Your task to perform on an android device: open sync settings in chrome Image 0: 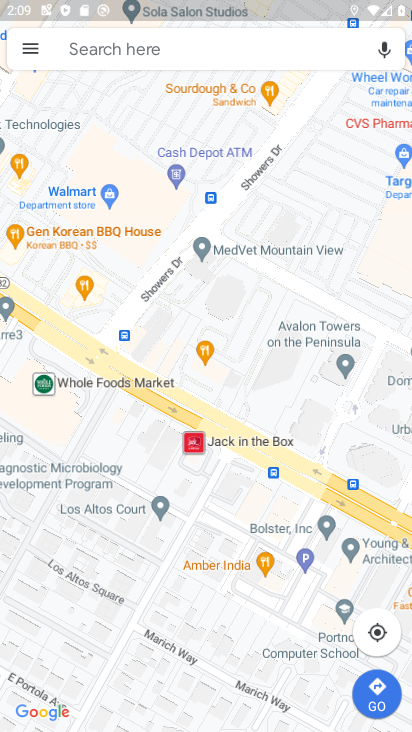
Step 0: press home button
Your task to perform on an android device: open sync settings in chrome Image 1: 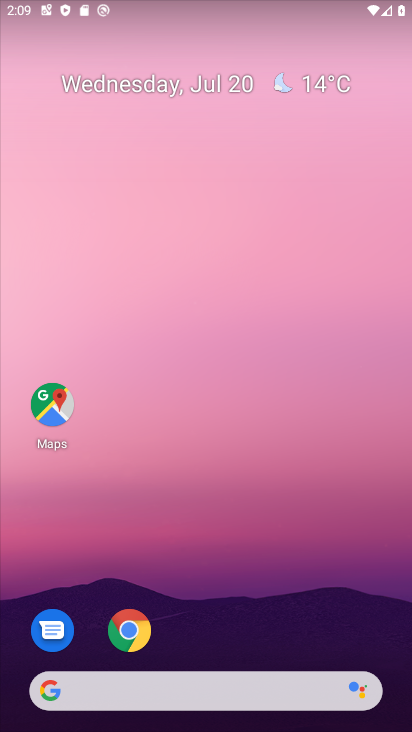
Step 1: click (141, 614)
Your task to perform on an android device: open sync settings in chrome Image 2: 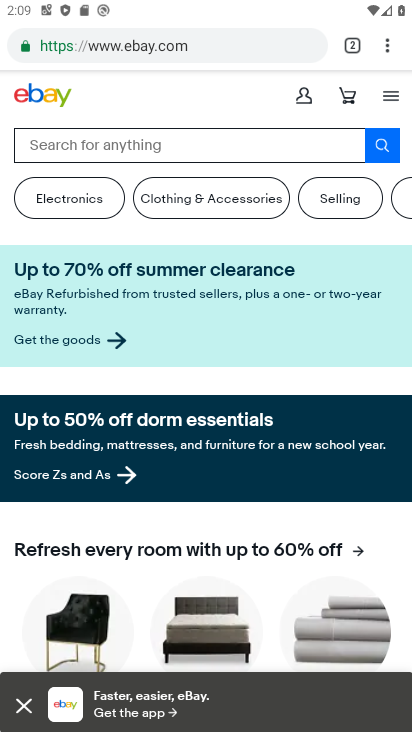
Step 2: click (388, 45)
Your task to perform on an android device: open sync settings in chrome Image 3: 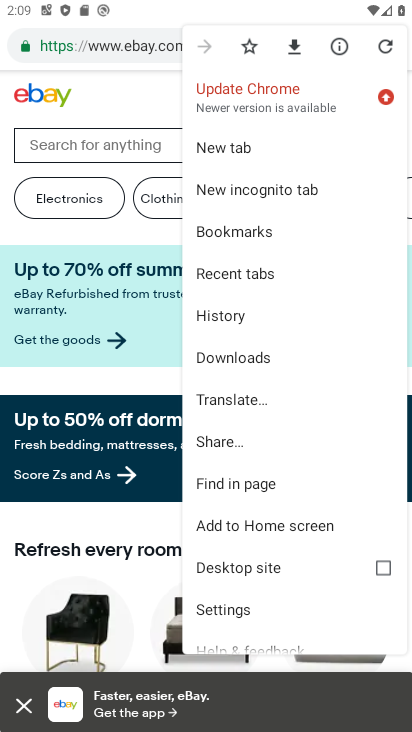
Step 3: click (222, 609)
Your task to perform on an android device: open sync settings in chrome Image 4: 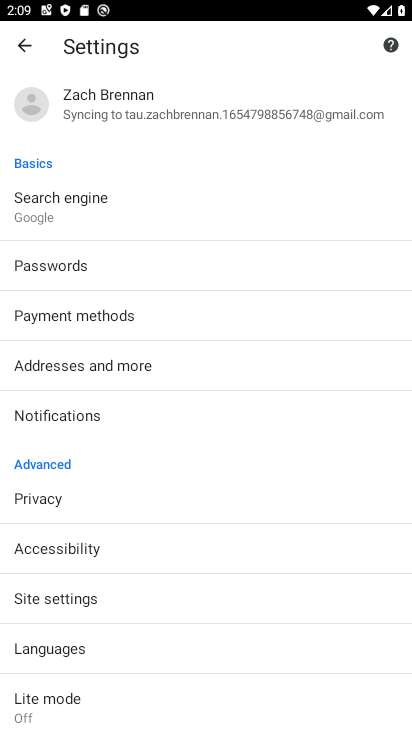
Step 4: click (77, 594)
Your task to perform on an android device: open sync settings in chrome Image 5: 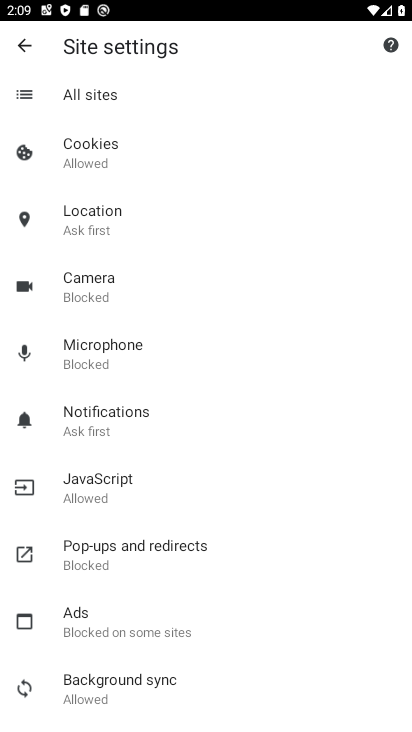
Step 5: click (139, 684)
Your task to perform on an android device: open sync settings in chrome Image 6: 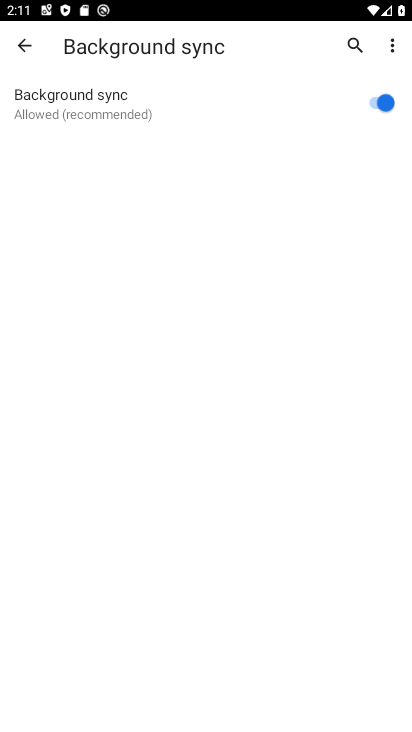
Step 6: task complete